Your task to perform on an android device: move a message to another label in the gmail app Image 0: 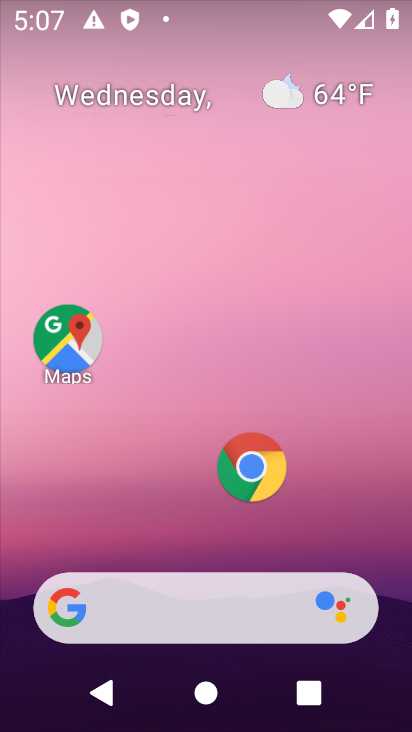
Step 0: drag from (317, 467) to (280, 11)
Your task to perform on an android device: move a message to another label in the gmail app Image 1: 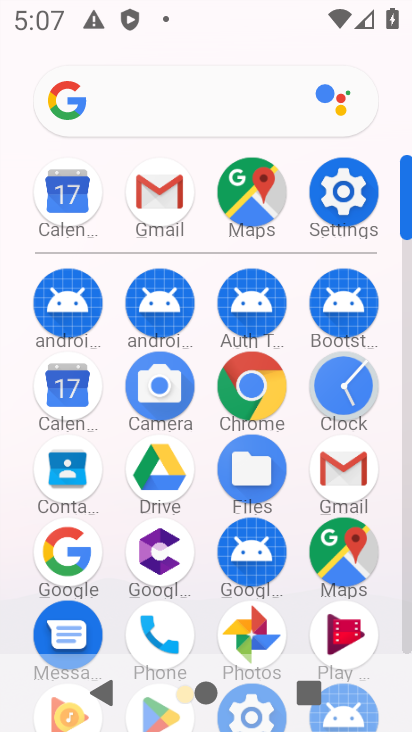
Step 1: click (361, 449)
Your task to perform on an android device: move a message to another label in the gmail app Image 2: 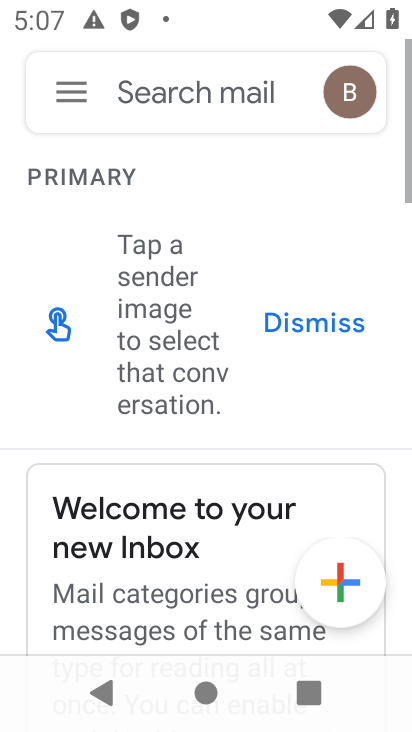
Step 2: task complete